Your task to perform on an android device: open app "Messages" (install if not already installed) Image 0: 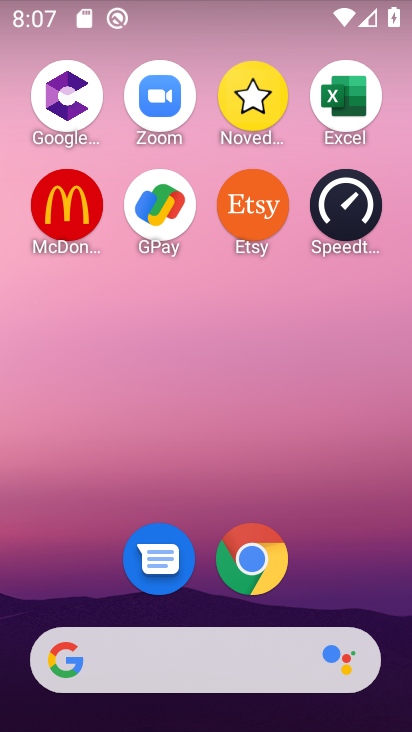
Step 0: press back button
Your task to perform on an android device: open app "Messages" (install if not already installed) Image 1: 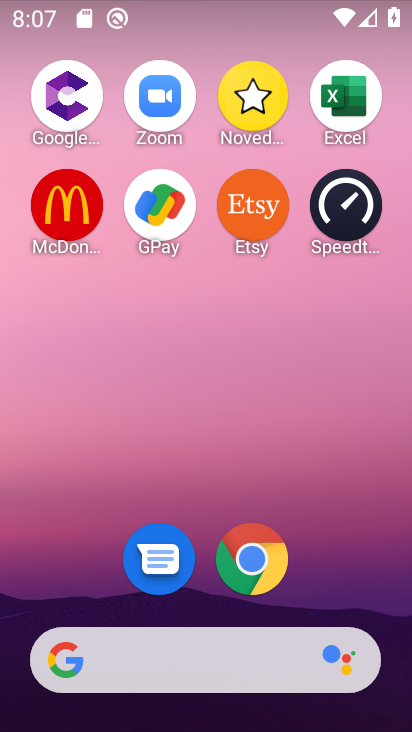
Step 1: drag from (161, 645) to (98, 86)
Your task to perform on an android device: open app "Messages" (install if not already installed) Image 2: 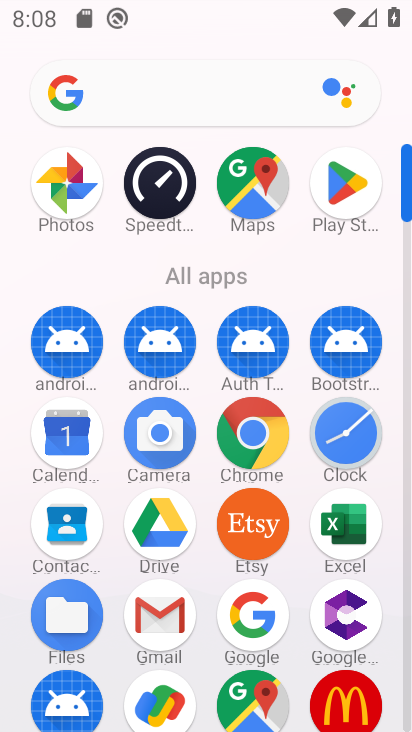
Step 2: click (322, 183)
Your task to perform on an android device: open app "Messages" (install if not already installed) Image 3: 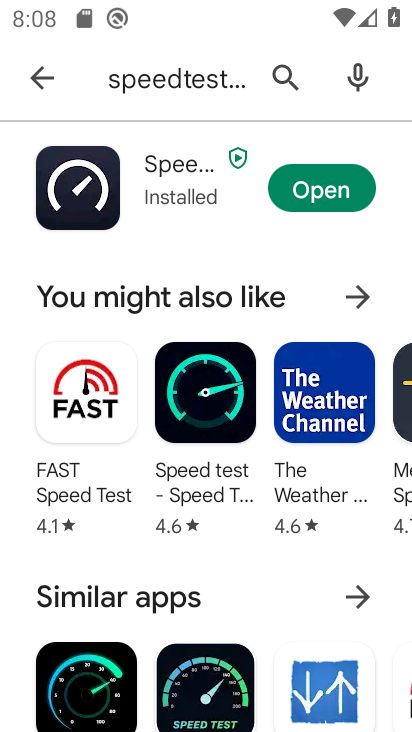
Step 3: drag from (308, 91) to (366, 91)
Your task to perform on an android device: open app "Messages" (install if not already installed) Image 4: 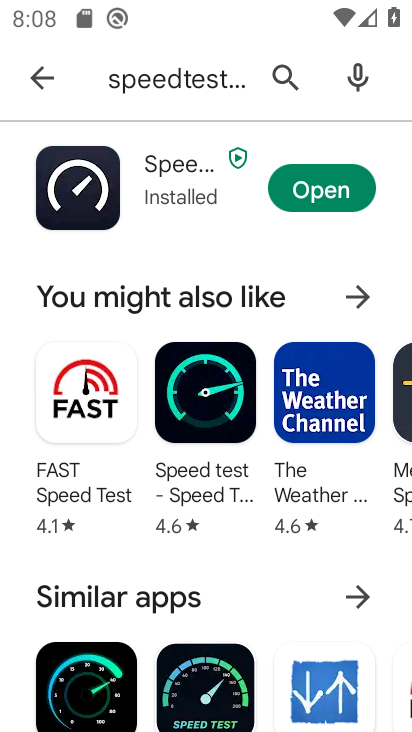
Step 4: click (276, 85)
Your task to perform on an android device: open app "Messages" (install if not already installed) Image 5: 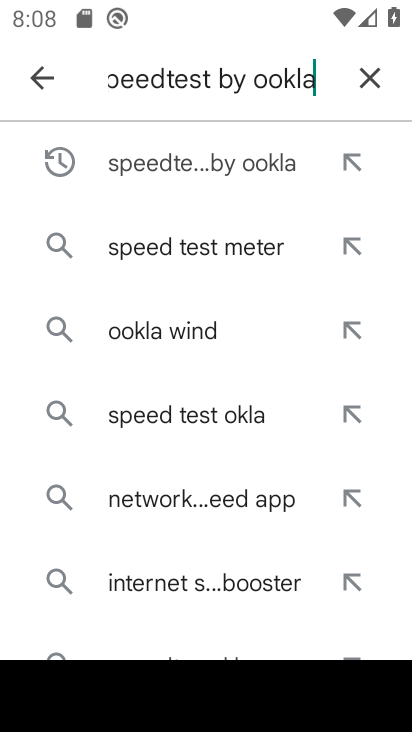
Step 5: click (372, 79)
Your task to perform on an android device: open app "Messages" (install if not already installed) Image 6: 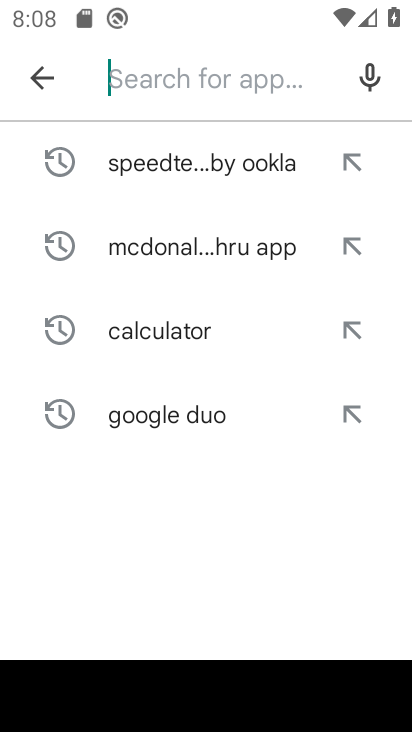
Step 6: type "messages"
Your task to perform on an android device: open app "Messages" (install if not already installed) Image 7: 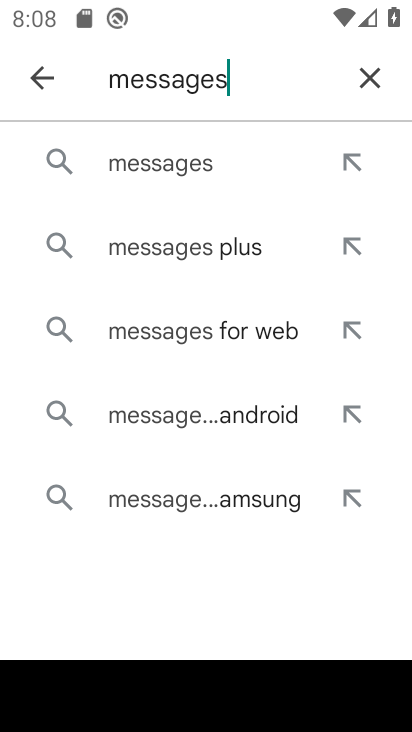
Step 7: click (192, 163)
Your task to perform on an android device: open app "Messages" (install if not already installed) Image 8: 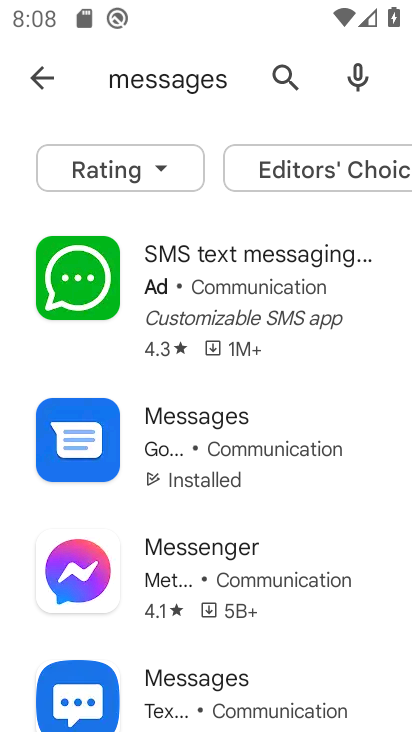
Step 8: click (185, 469)
Your task to perform on an android device: open app "Messages" (install if not already installed) Image 9: 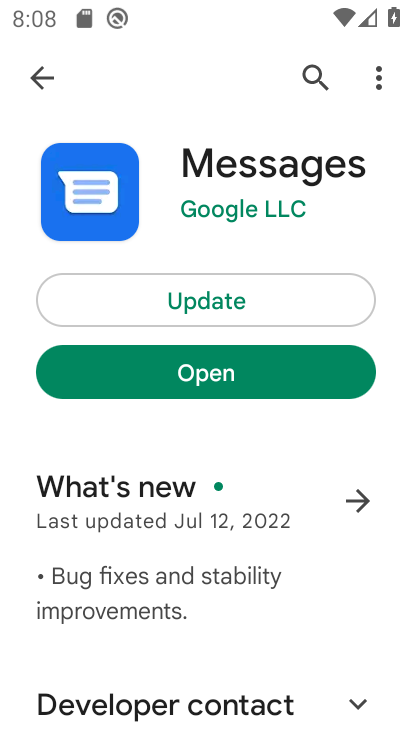
Step 9: click (212, 382)
Your task to perform on an android device: open app "Messages" (install if not already installed) Image 10: 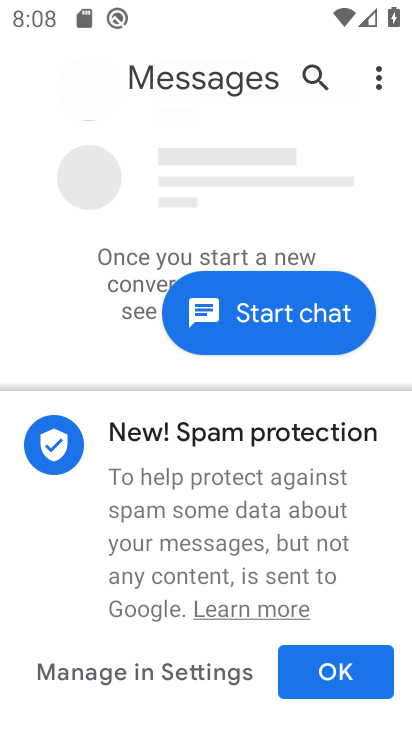
Step 10: task complete